Your task to perform on an android device: set the timer Image 0: 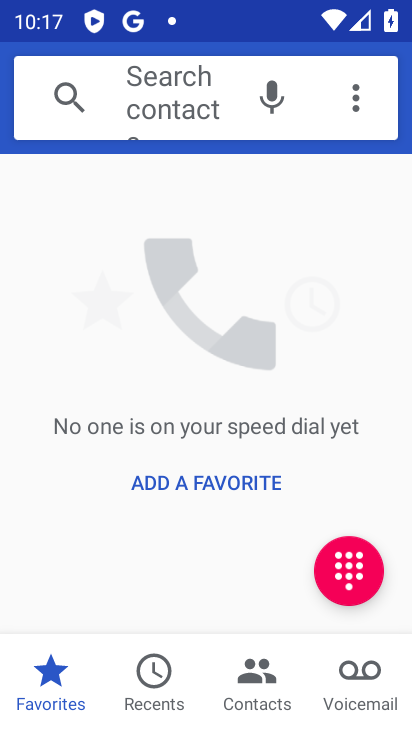
Step 0: press home button
Your task to perform on an android device: set the timer Image 1: 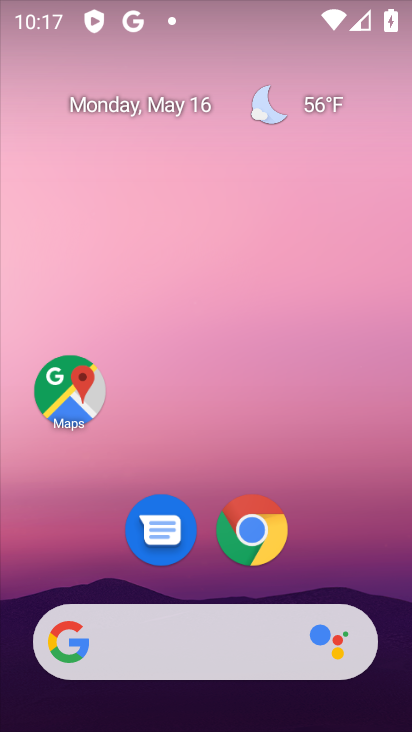
Step 1: drag from (350, 545) to (361, 158)
Your task to perform on an android device: set the timer Image 2: 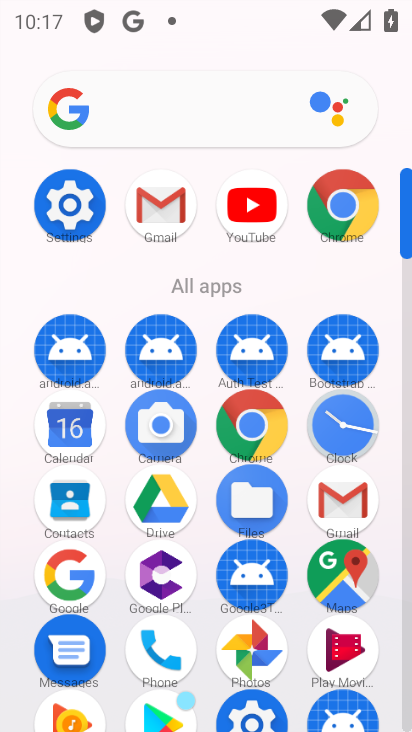
Step 2: click (361, 441)
Your task to perform on an android device: set the timer Image 3: 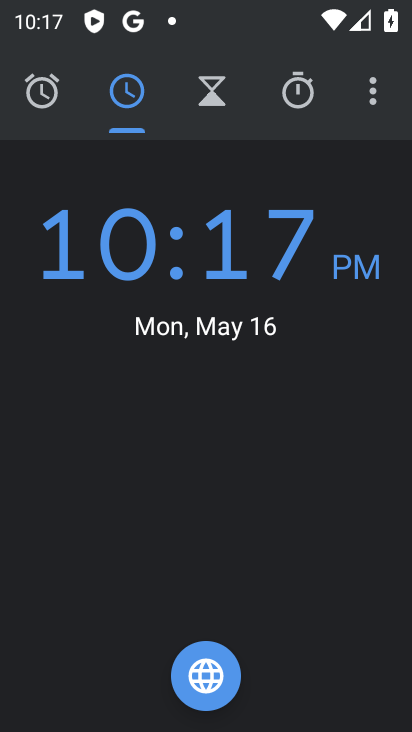
Step 3: click (204, 93)
Your task to perform on an android device: set the timer Image 4: 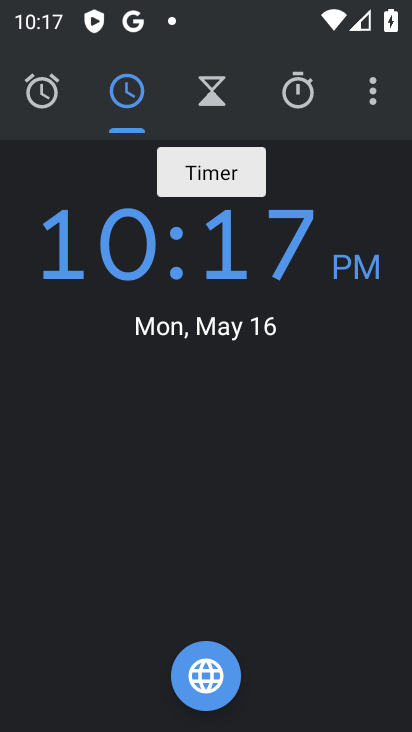
Step 4: click (204, 93)
Your task to perform on an android device: set the timer Image 5: 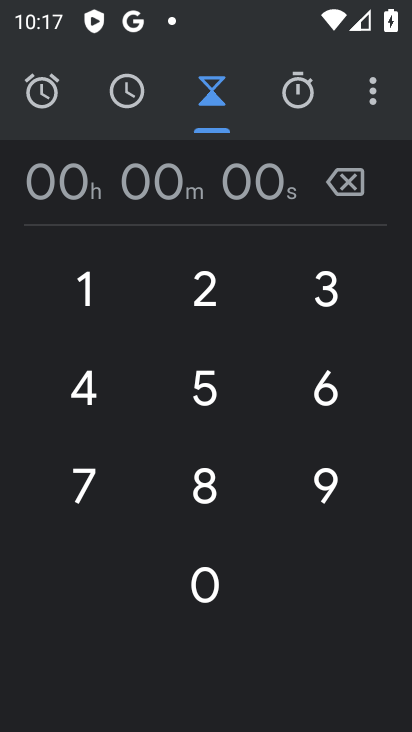
Step 5: click (193, 389)
Your task to perform on an android device: set the timer Image 6: 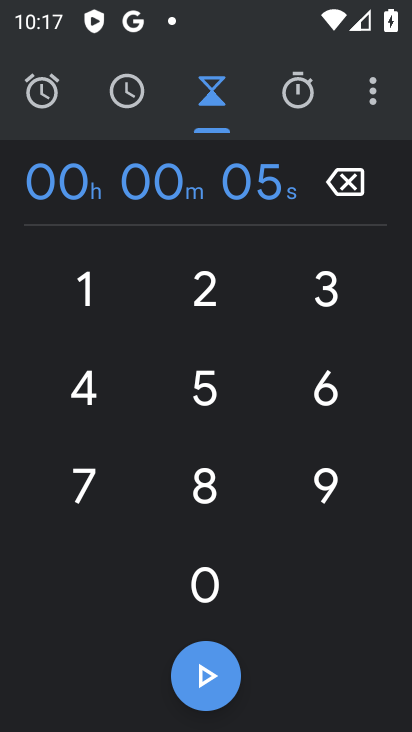
Step 6: click (203, 692)
Your task to perform on an android device: set the timer Image 7: 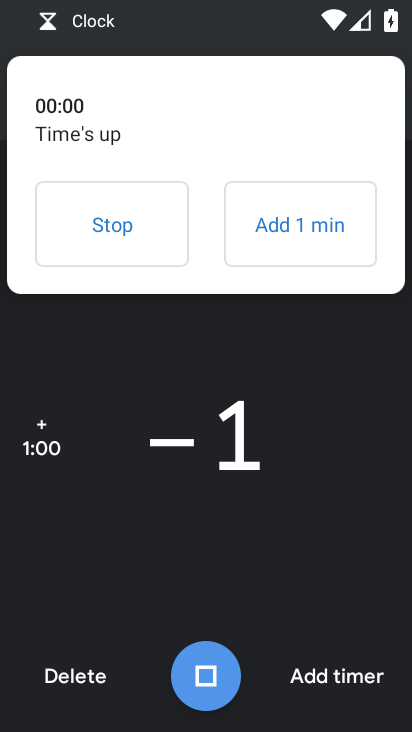
Step 7: task complete